Your task to perform on an android device: turn off data saver in the chrome app Image 0: 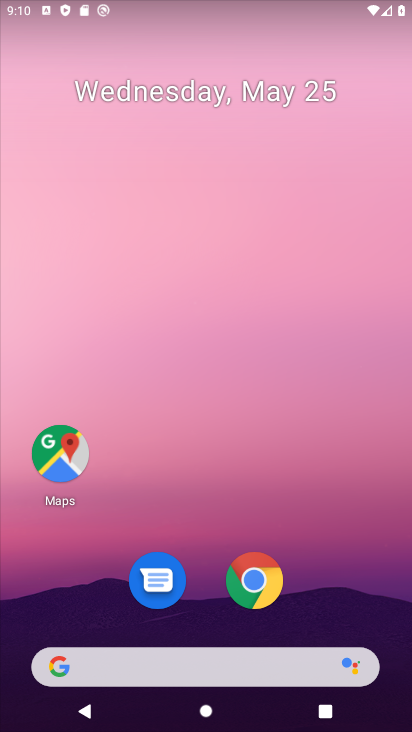
Step 0: click (255, 575)
Your task to perform on an android device: turn off data saver in the chrome app Image 1: 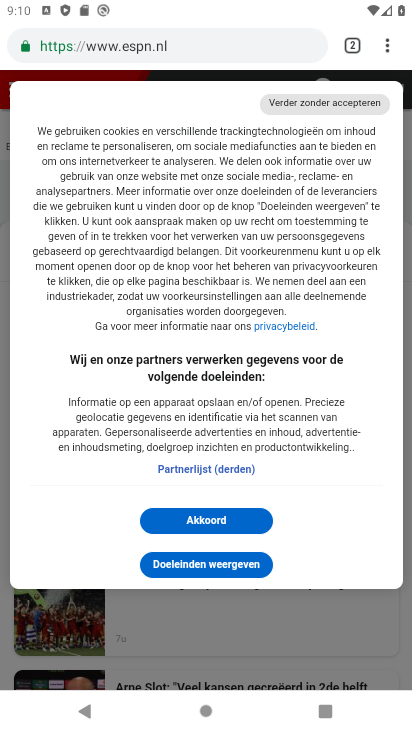
Step 1: click (392, 50)
Your task to perform on an android device: turn off data saver in the chrome app Image 2: 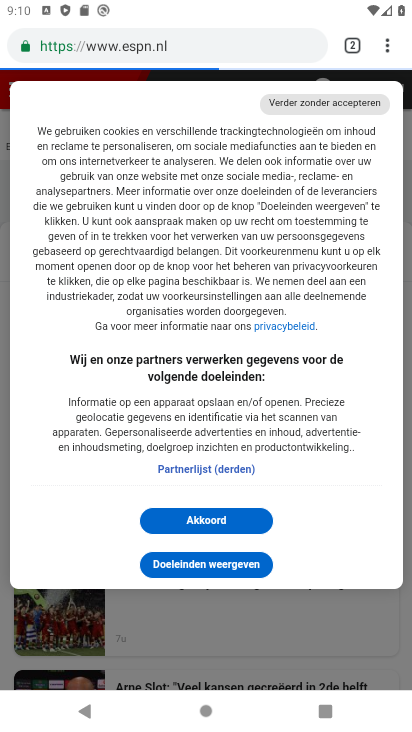
Step 2: click (391, 50)
Your task to perform on an android device: turn off data saver in the chrome app Image 3: 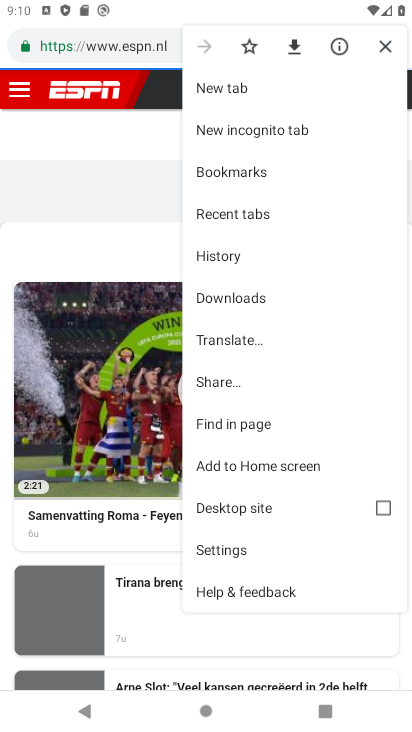
Step 3: click (209, 559)
Your task to perform on an android device: turn off data saver in the chrome app Image 4: 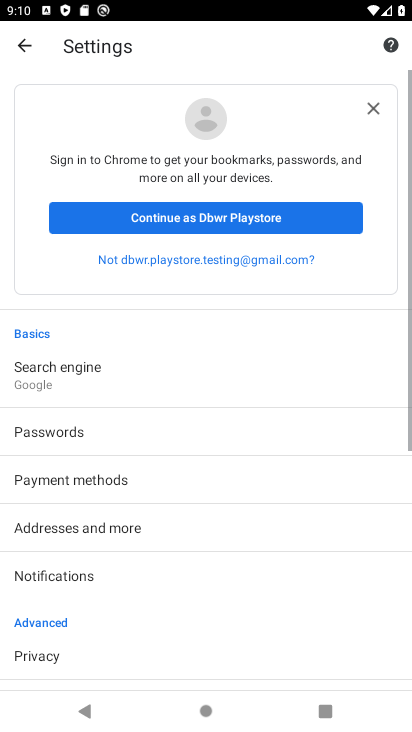
Step 4: drag from (47, 633) to (64, 66)
Your task to perform on an android device: turn off data saver in the chrome app Image 5: 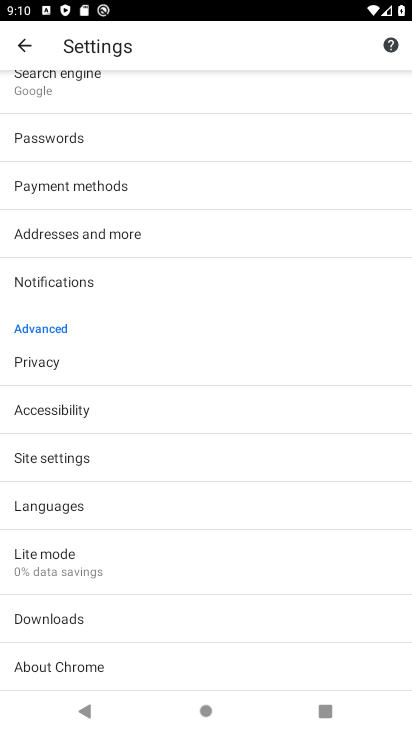
Step 5: click (28, 556)
Your task to perform on an android device: turn off data saver in the chrome app Image 6: 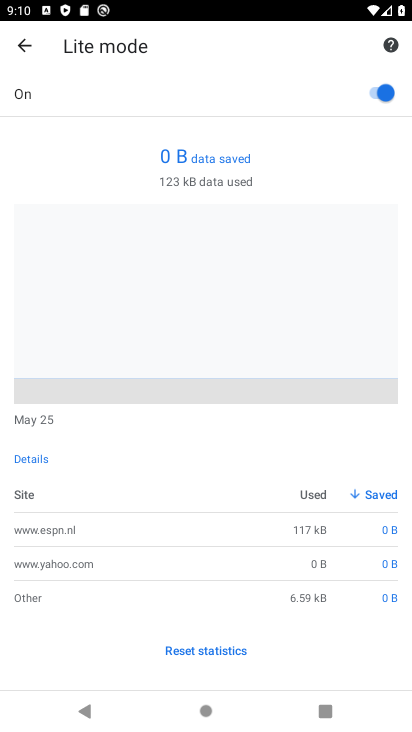
Step 6: click (394, 89)
Your task to perform on an android device: turn off data saver in the chrome app Image 7: 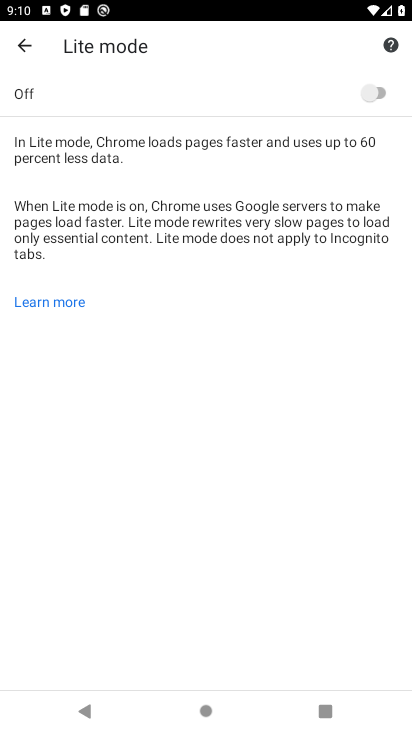
Step 7: task complete